Your task to perform on an android device: turn off priority inbox in the gmail app Image 0: 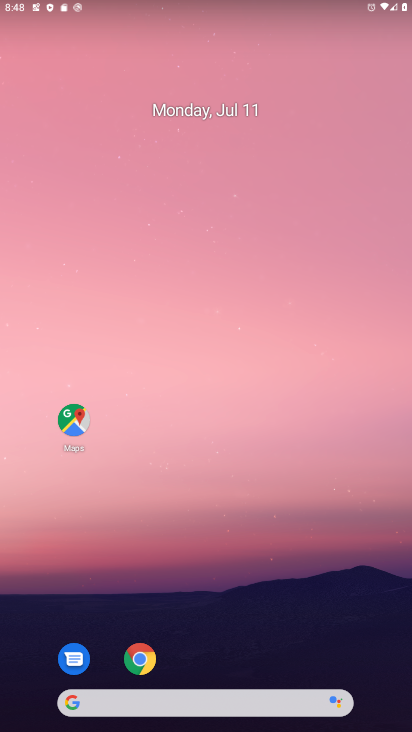
Step 0: press home button
Your task to perform on an android device: turn off priority inbox in the gmail app Image 1: 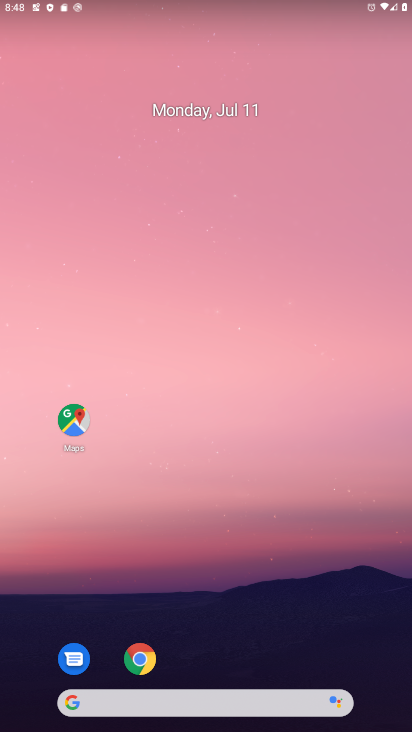
Step 1: drag from (211, 597) to (148, 235)
Your task to perform on an android device: turn off priority inbox in the gmail app Image 2: 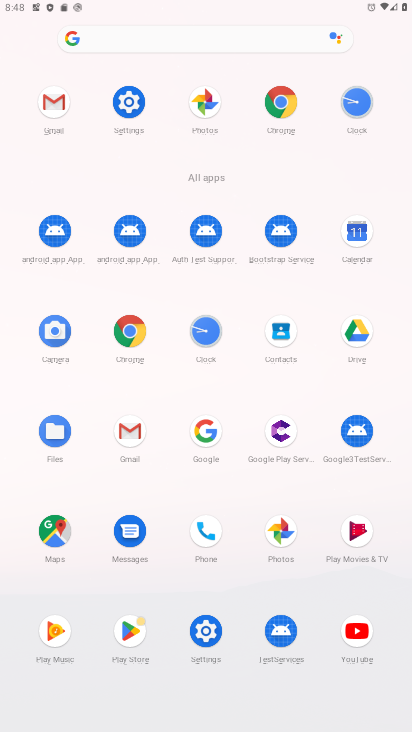
Step 2: click (126, 428)
Your task to perform on an android device: turn off priority inbox in the gmail app Image 3: 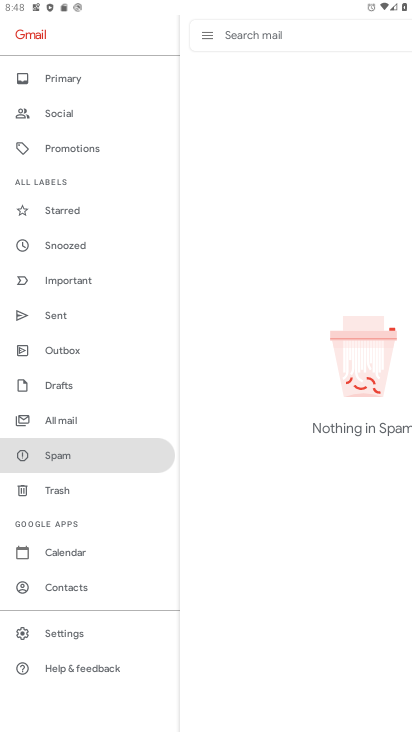
Step 3: click (61, 634)
Your task to perform on an android device: turn off priority inbox in the gmail app Image 4: 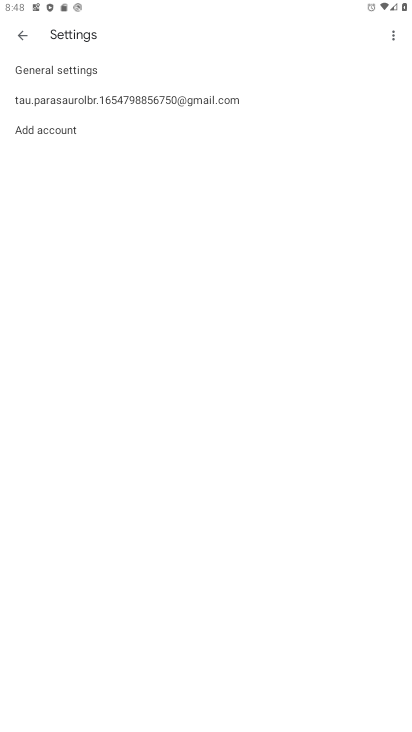
Step 4: click (65, 93)
Your task to perform on an android device: turn off priority inbox in the gmail app Image 5: 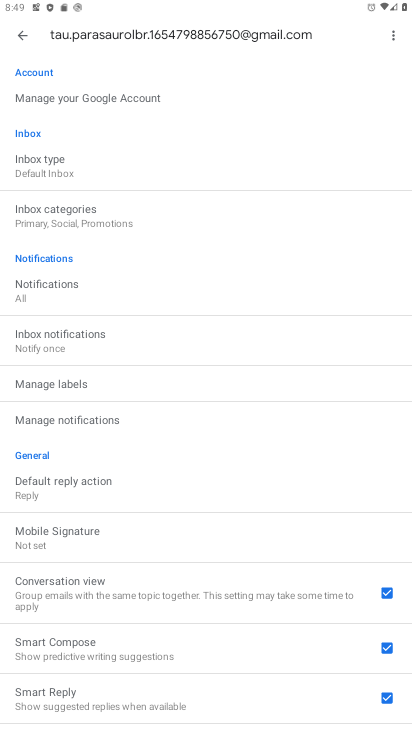
Step 5: click (42, 166)
Your task to perform on an android device: turn off priority inbox in the gmail app Image 6: 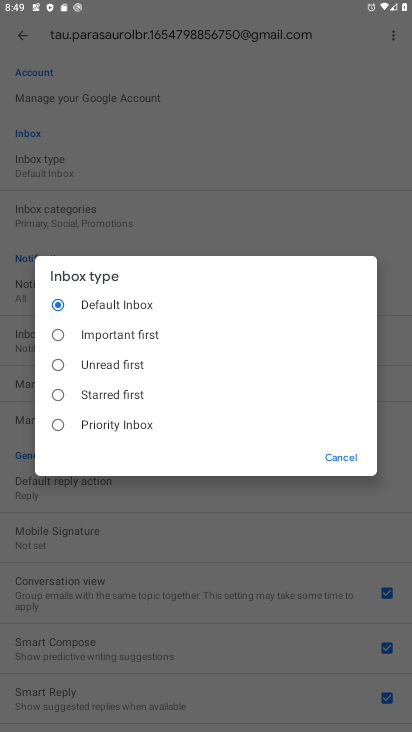
Step 6: task complete